Your task to perform on an android device: change the clock display to show seconds Image 0: 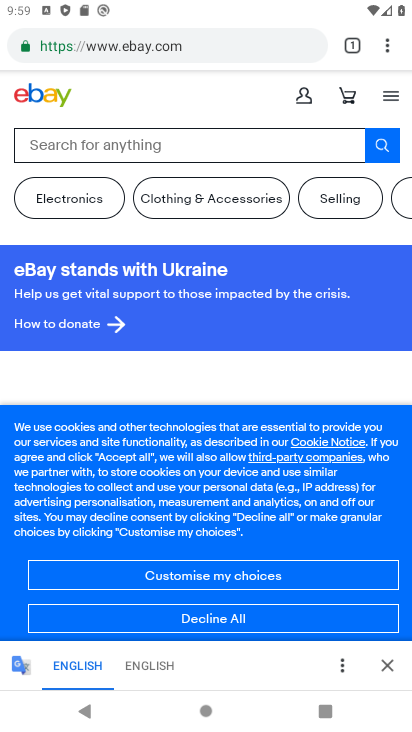
Step 0: press home button
Your task to perform on an android device: change the clock display to show seconds Image 1: 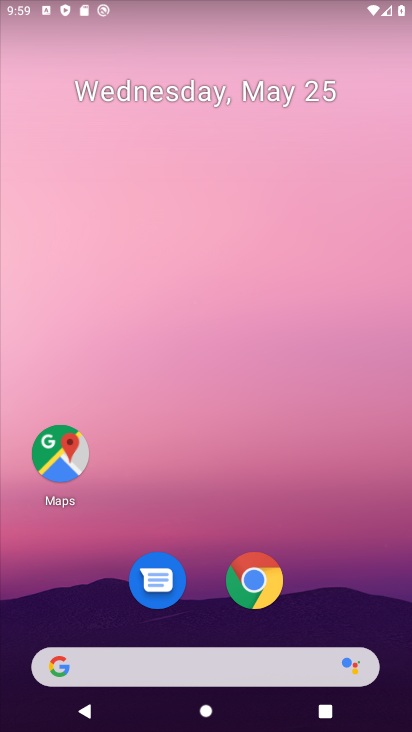
Step 1: drag from (54, 518) to (259, 107)
Your task to perform on an android device: change the clock display to show seconds Image 2: 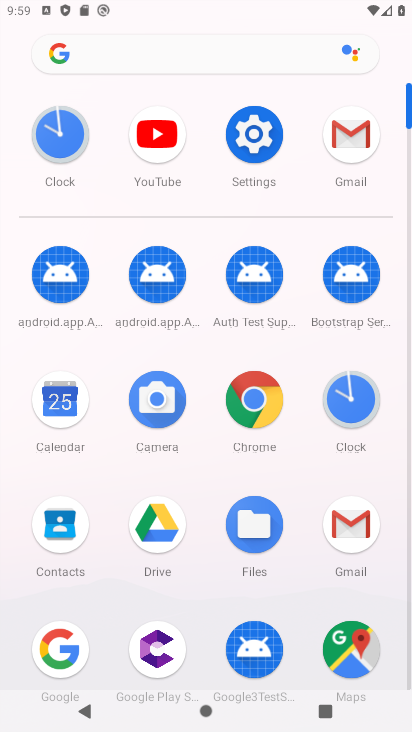
Step 2: click (64, 147)
Your task to perform on an android device: change the clock display to show seconds Image 3: 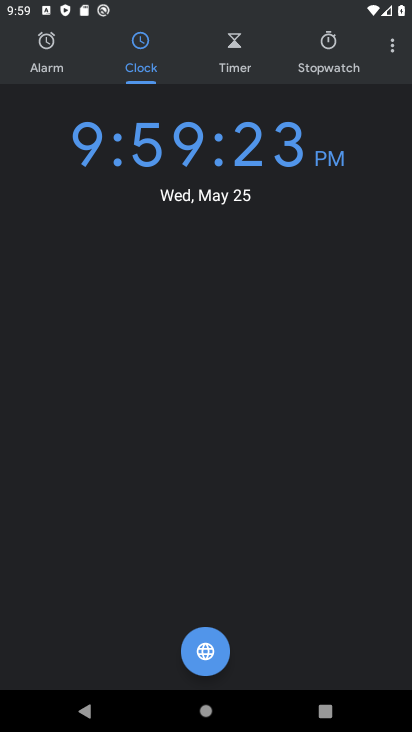
Step 3: click (401, 44)
Your task to perform on an android device: change the clock display to show seconds Image 4: 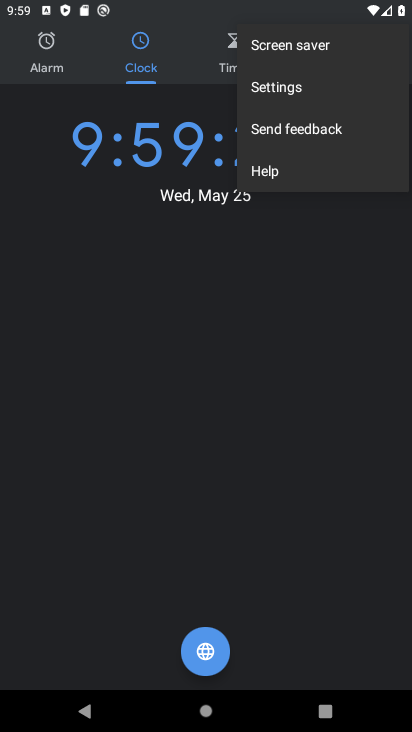
Step 4: click (303, 82)
Your task to perform on an android device: change the clock display to show seconds Image 5: 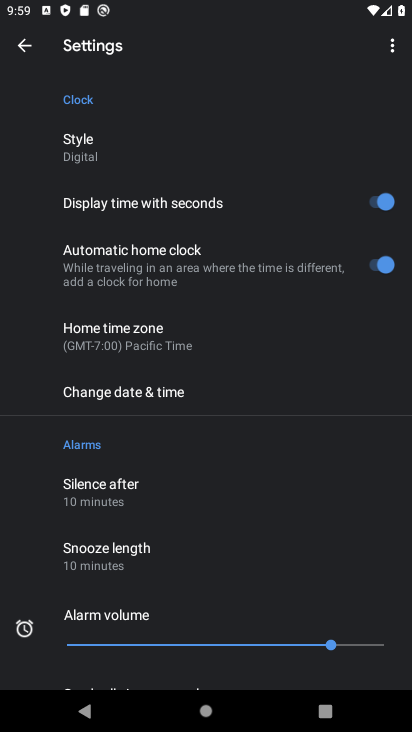
Step 5: task complete